Your task to perform on an android device: empty trash in the gmail app Image 0: 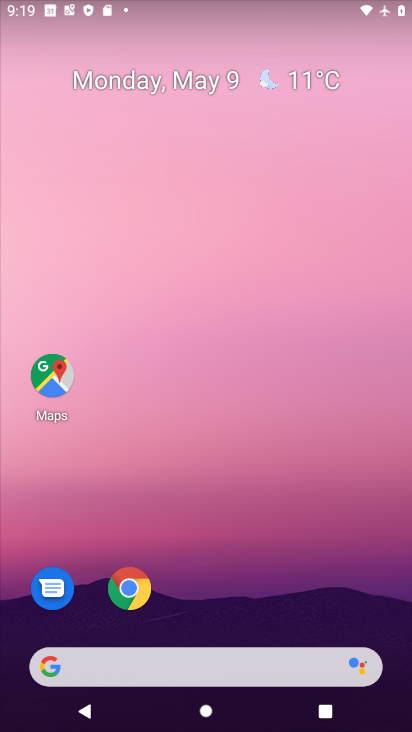
Step 0: drag from (157, 662) to (267, 176)
Your task to perform on an android device: empty trash in the gmail app Image 1: 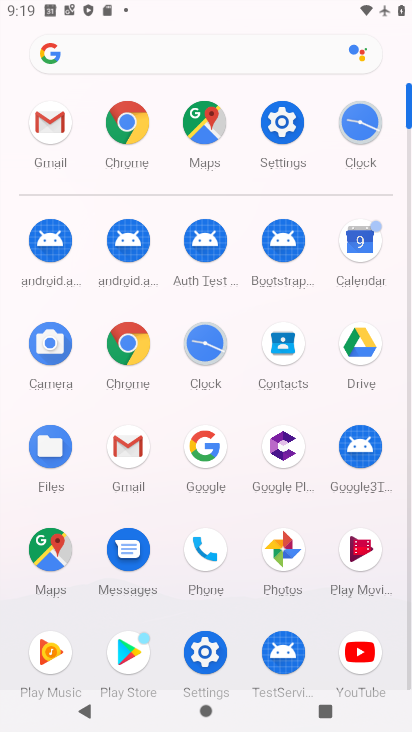
Step 1: click (48, 128)
Your task to perform on an android device: empty trash in the gmail app Image 2: 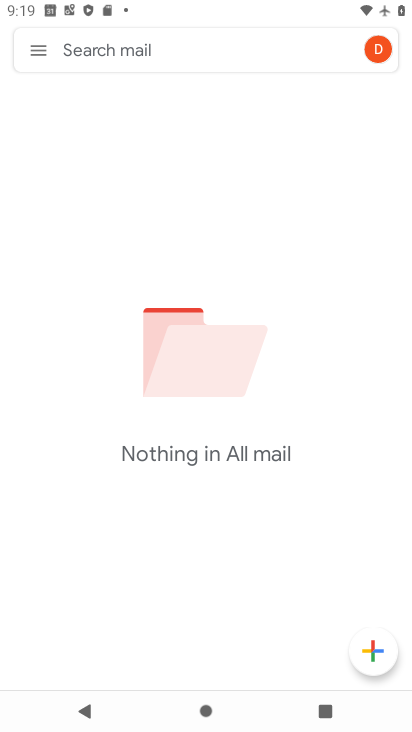
Step 2: click (37, 46)
Your task to perform on an android device: empty trash in the gmail app Image 3: 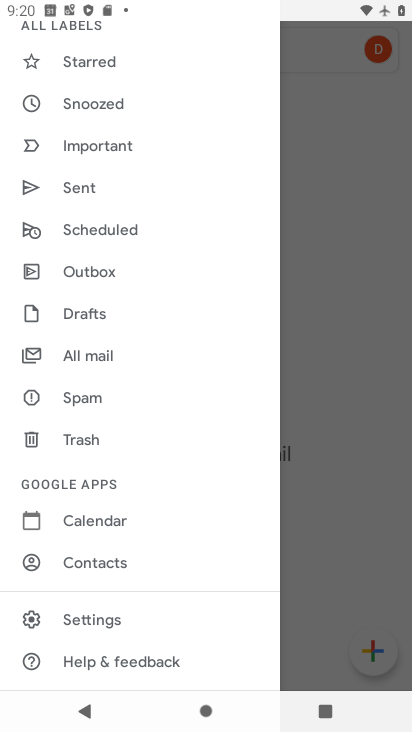
Step 3: click (95, 443)
Your task to perform on an android device: empty trash in the gmail app Image 4: 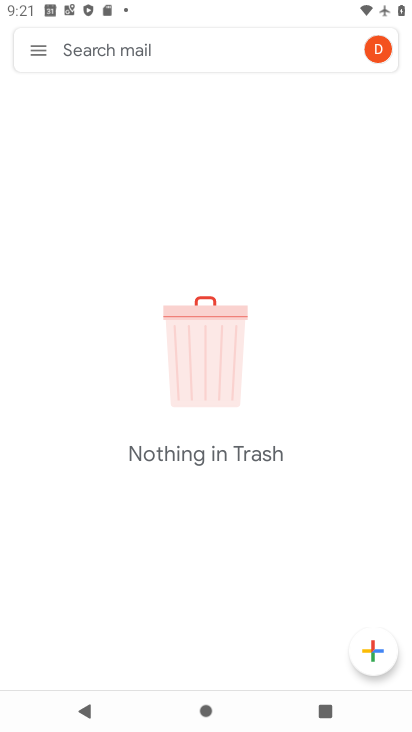
Step 4: task complete